Your task to perform on an android device: Show me popular videos on Youtube Image 0: 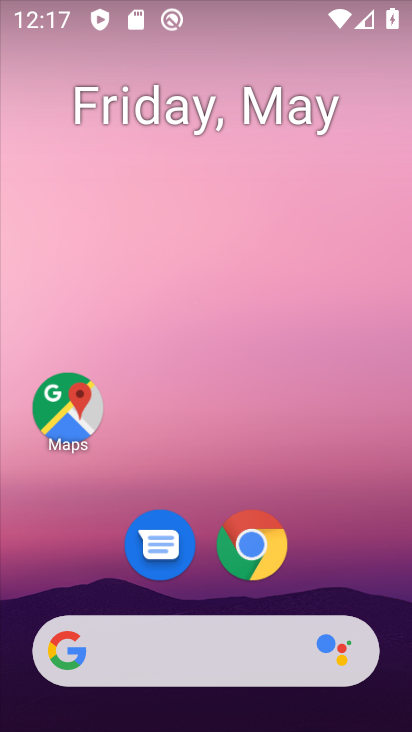
Step 0: drag from (348, 514) to (308, 205)
Your task to perform on an android device: Show me popular videos on Youtube Image 1: 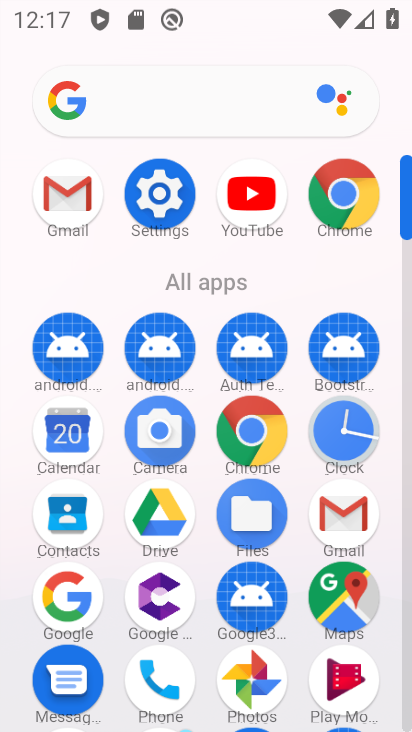
Step 1: click (259, 186)
Your task to perform on an android device: Show me popular videos on Youtube Image 2: 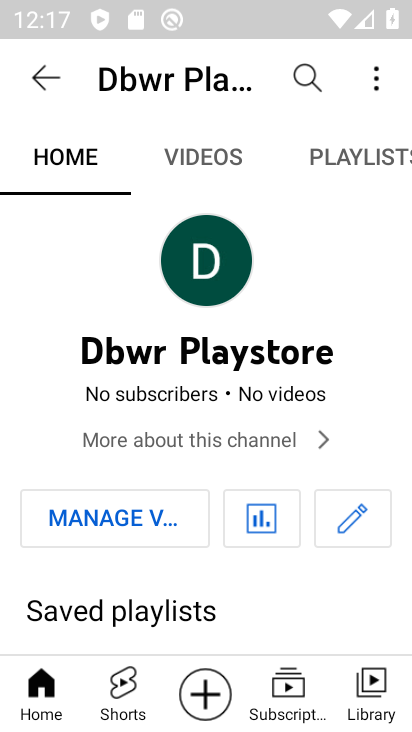
Step 2: click (44, 698)
Your task to perform on an android device: Show me popular videos on Youtube Image 3: 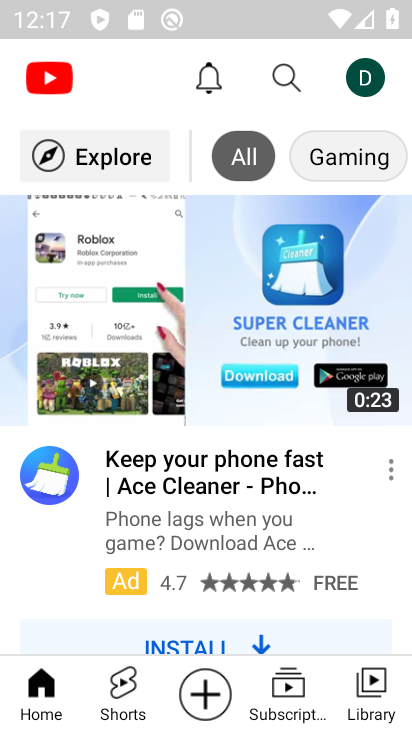
Step 3: drag from (220, 597) to (230, 413)
Your task to perform on an android device: Show me popular videos on Youtube Image 4: 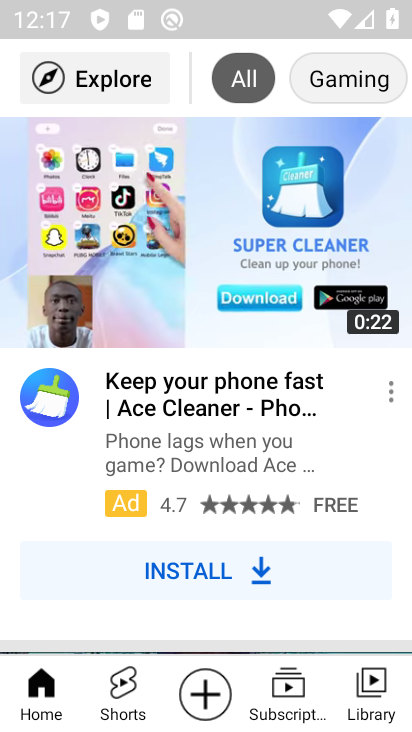
Step 4: drag from (246, 444) to (217, 107)
Your task to perform on an android device: Show me popular videos on Youtube Image 5: 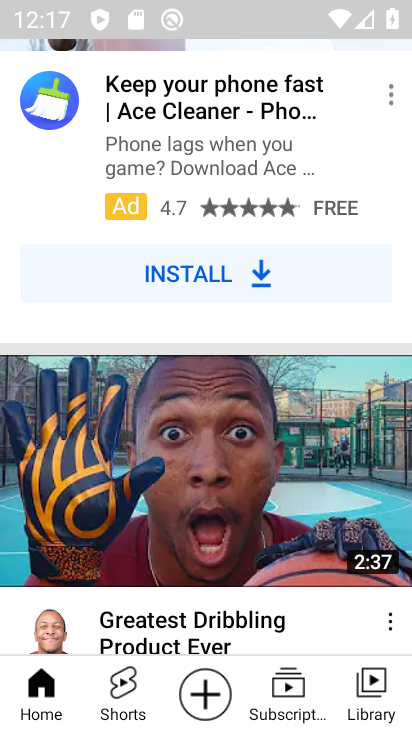
Step 5: drag from (239, 439) to (235, 192)
Your task to perform on an android device: Show me popular videos on Youtube Image 6: 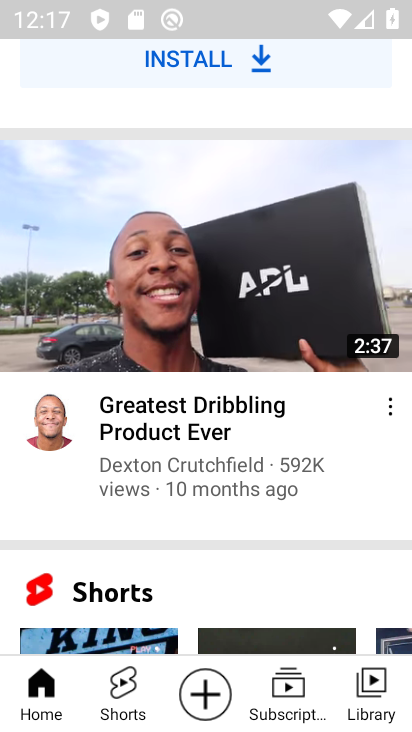
Step 6: click (254, 243)
Your task to perform on an android device: Show me popular videos on Youtube Image 7: 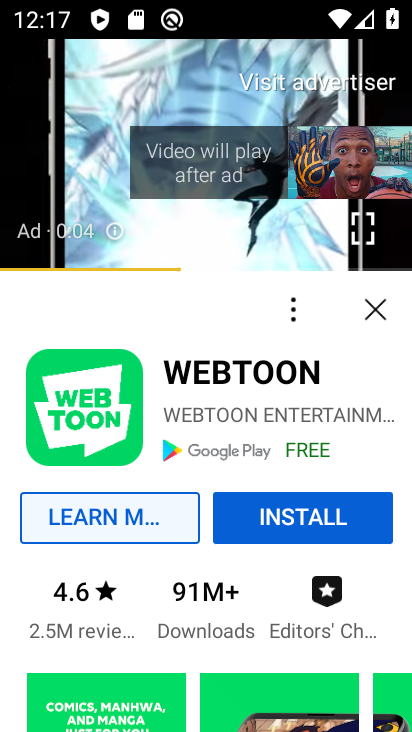
Step 7: click (373, 303)
Your task to perform on an android device: Show me popular videos on Youtube Image 8: 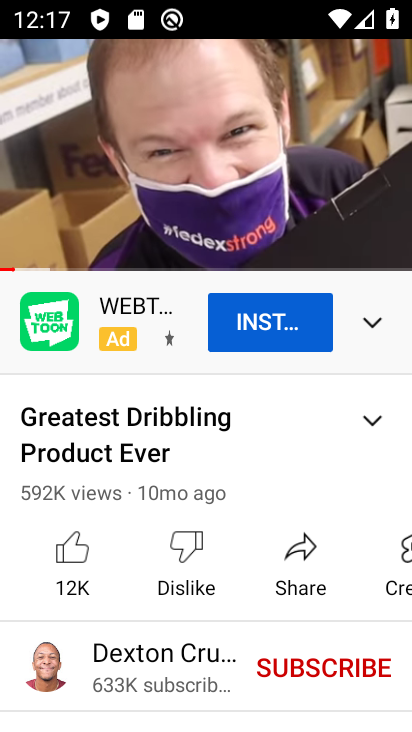
Step 8: task complete